Your task to perform on an android device: toggle location history Image 0: 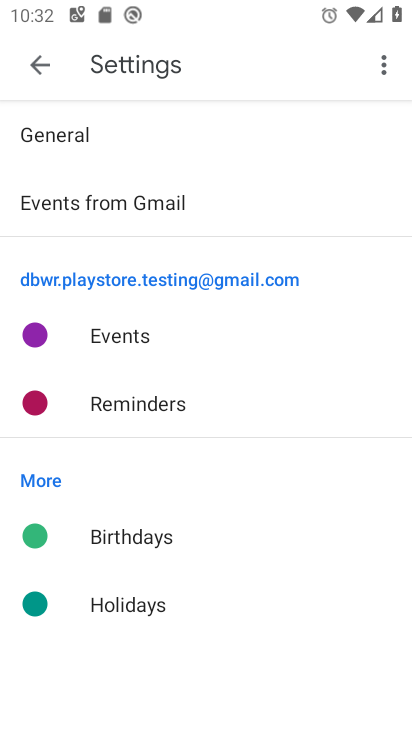
Step 0: press home button
Your task to perform on an android device: toggle location history Image 1: 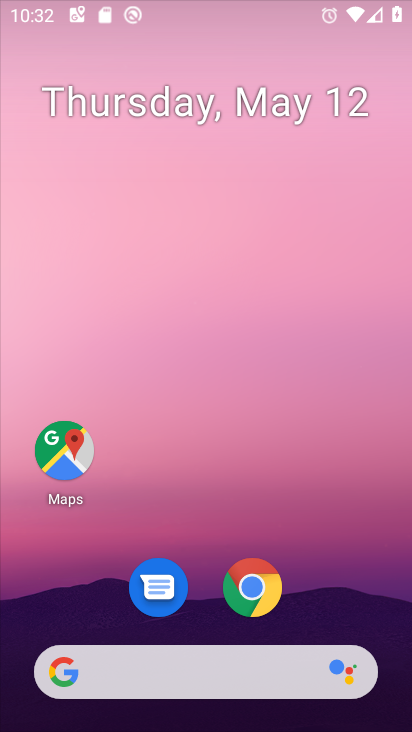
Step 1: drag from (393, 654) to (285, 106)
Your task to perform on an android device: toggle location history Image 2: 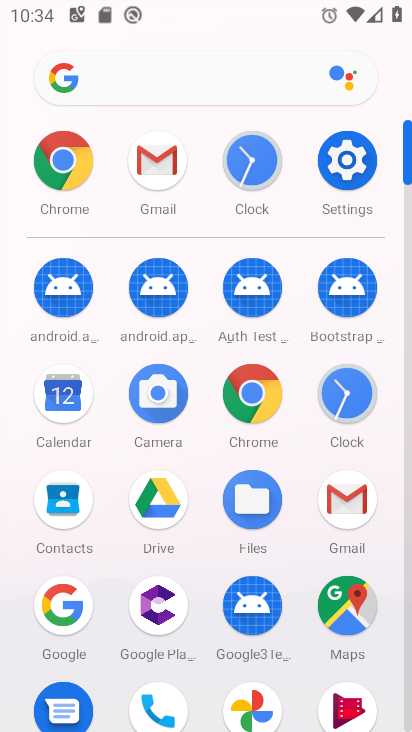
Step 2: click (358, 159)
Your task to perform on an android device: toggle location history Image 3: 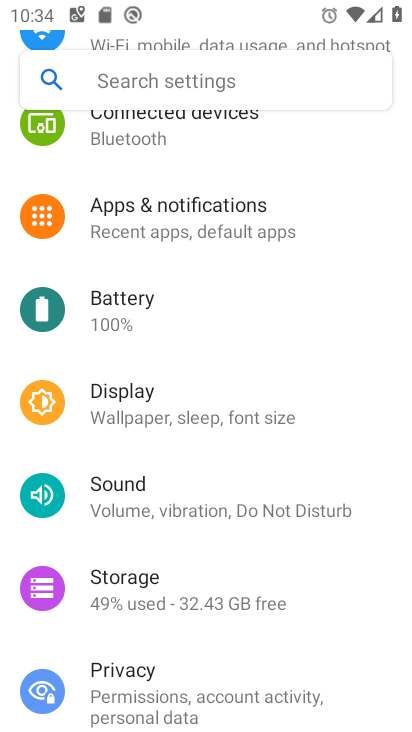
Step 3: drag from (189, 665) to (188, 209)
Your task to perform on an android device: toggle location history Image 4: 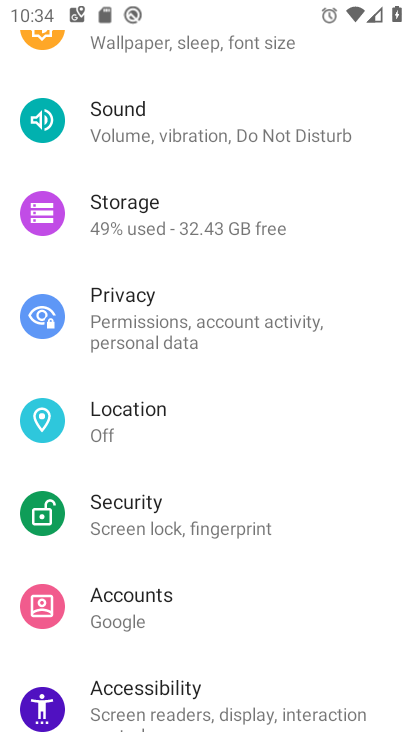
Step 4: click (194, 418)
Your task to perform on an android device: toggle location history Image 5: 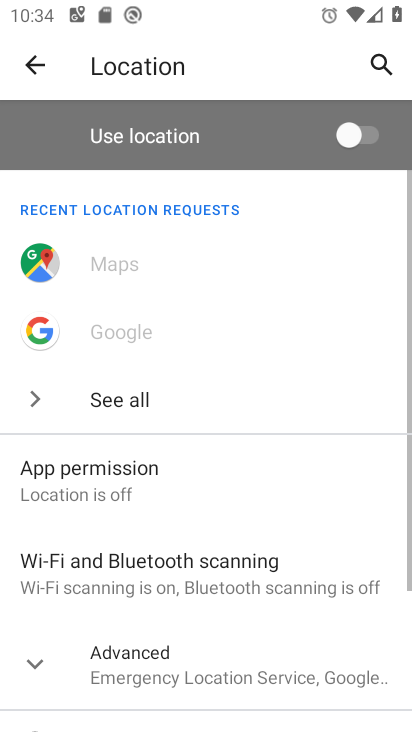
Step 5: drag from (229, 653) to (208, 246)
Your task to perform on an android device: toggle location history Image 6: 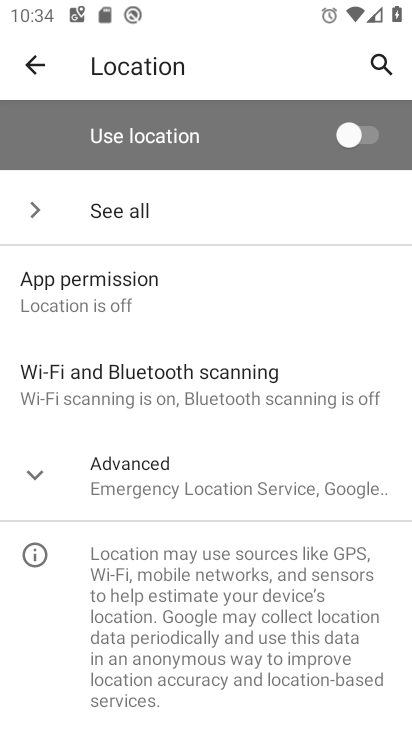
Step 6: click (41, 461)
Your task to perform on an android device: toggle location history Image 7: 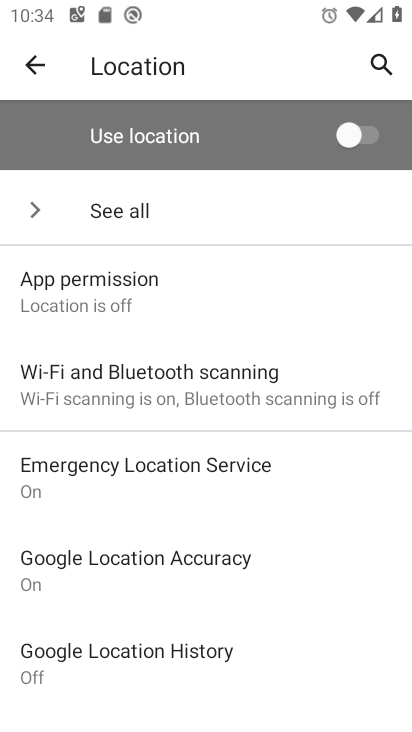
Step 7: click (194, 659)
Your task to perform on an android device: toggle location history Image 8: 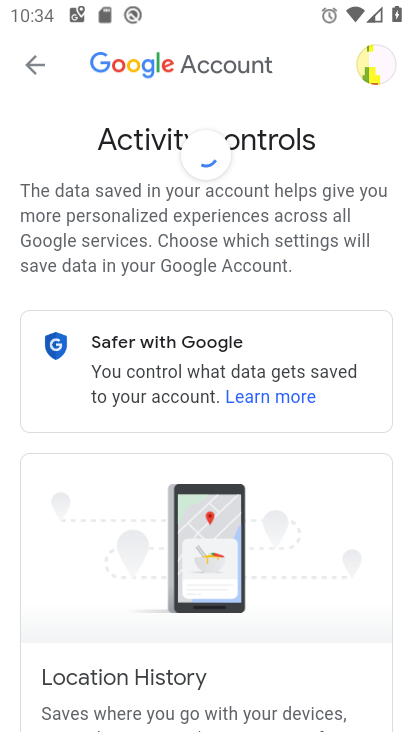
Step 8: drag from (311, 589) to (257, 121)
Your task to perform on an android device: toggle location history Image 9: 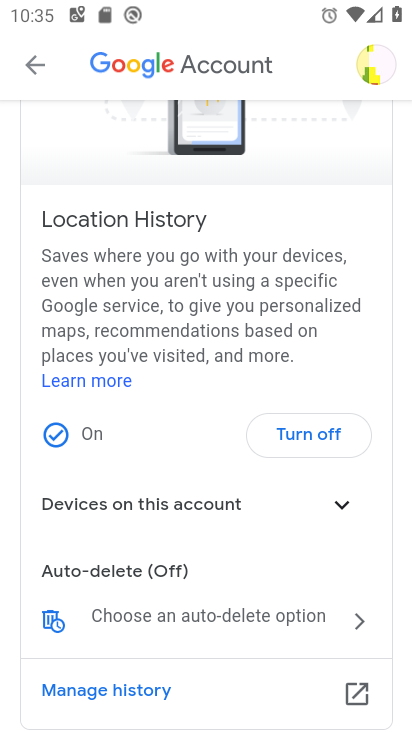
Step 9: click (309, 432)
Your task to perform on an android device: toggle location history Image 10: 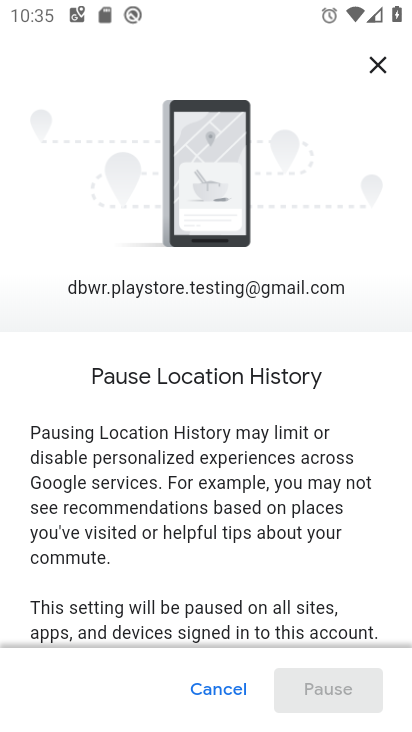
Step 10: task complete